Your task to perform on an android device: open chrome privacy settings Image 0: 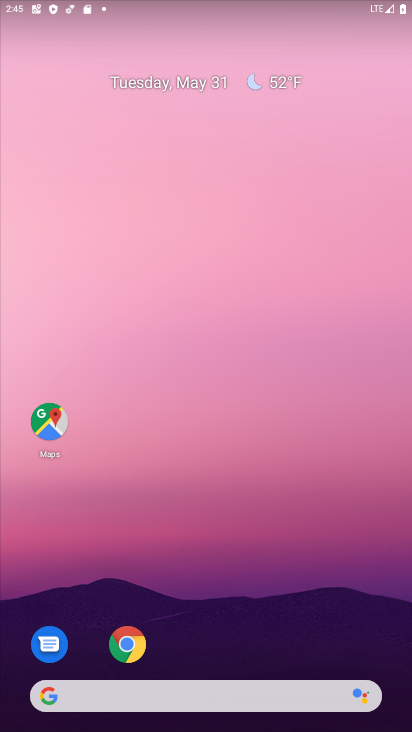
Step 0: click (128, 647)
Your task to perform on an android device: open chrome privacy settings Image 1: 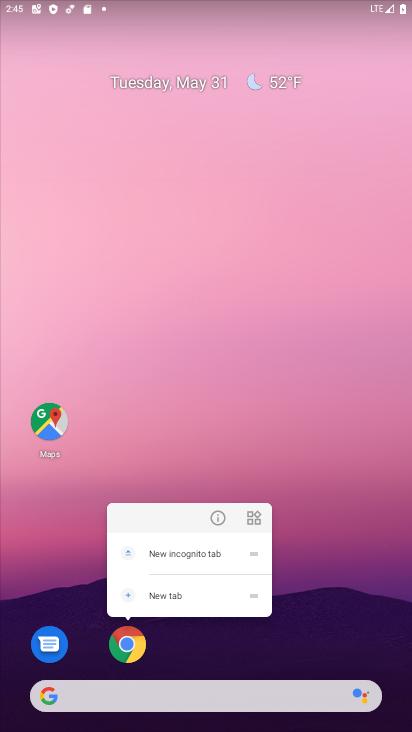
Step 1: click (134, 652)
Your task to perform on an android device: open chrome privacy settings Image 2: 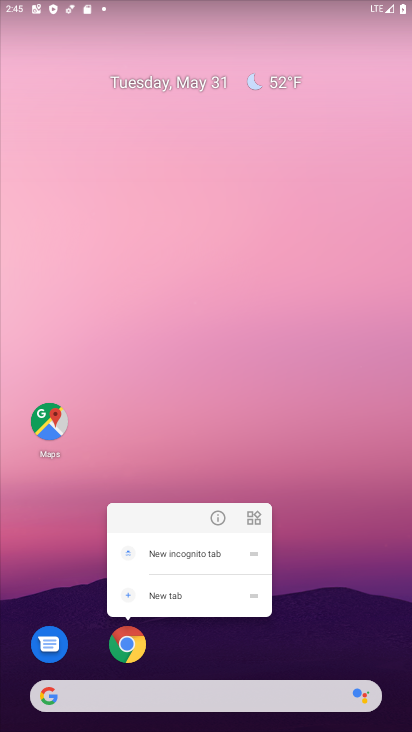
Step 2: click (133, 650)
Your task to perform on an android device: open chrome privacy settings Image 3: 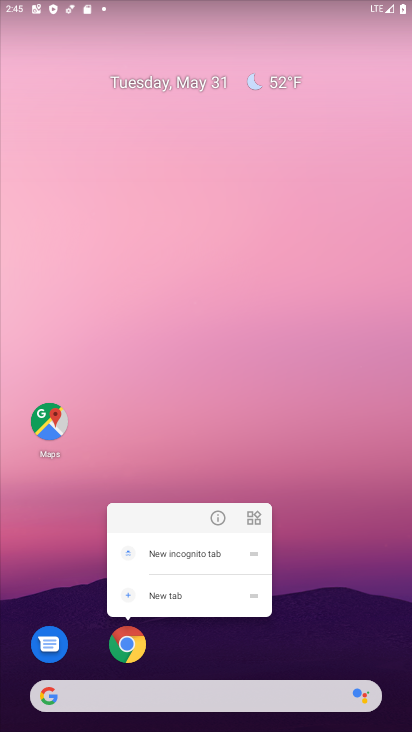
Step 3: click (124, 644)
Your task to perform on an android device: open chrome privacy settings Image 4: 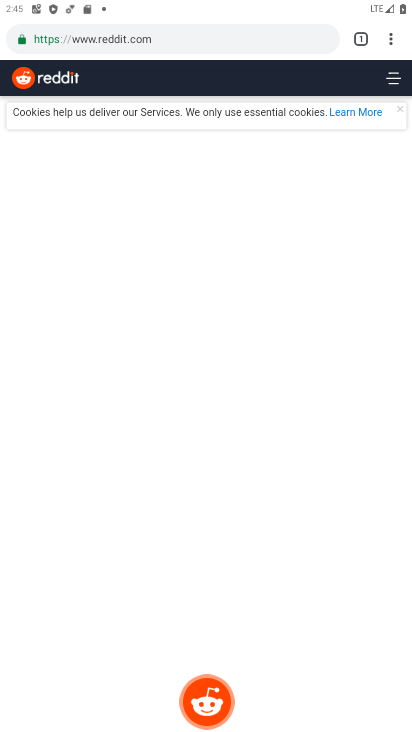
Step 4: click (390, 28)
Your task to perform on an android device: open chrome privacy settings Image 5: 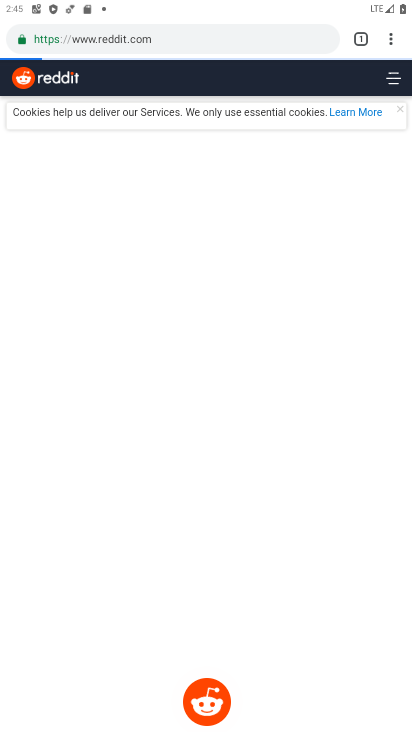
Step 5: drag from (388, 28) to (269, 515)
Your task to perform on an android device: open chrome privacy settings Image 6: 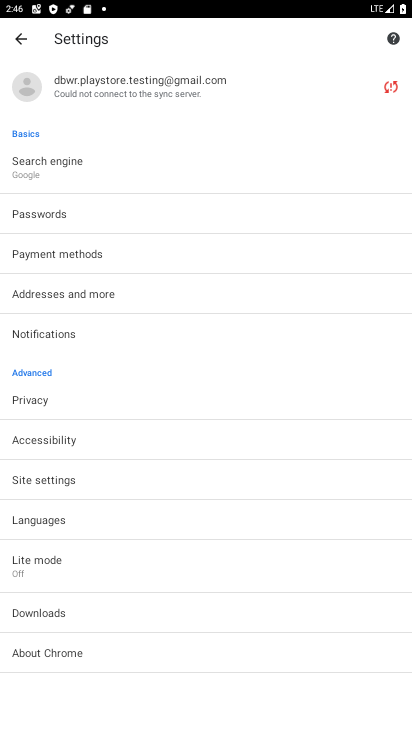
Step 6: click (37, 400)
Your task to perform on an android device: open chrome privacy settings Image 7: 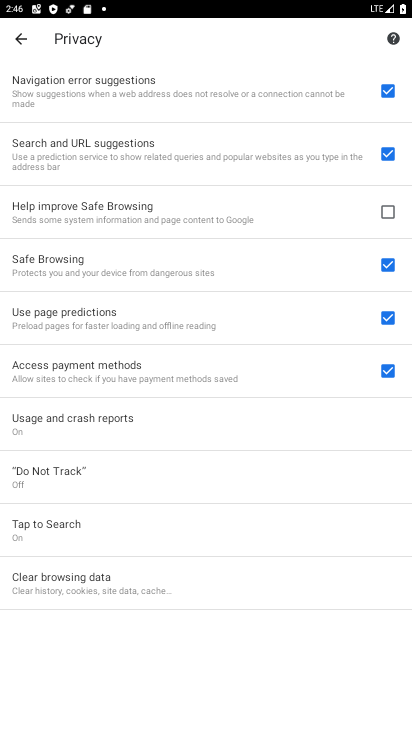
Step 7: task complete